Your task to perform on an android device: Is it going to rain this weekend? Image 0: 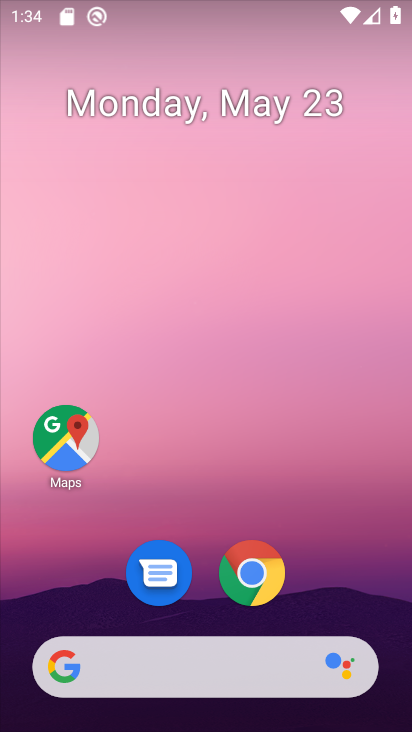
Step 0: drag from (323, 598) to (359, 100)
Your task to perform on an android device: Is it going to rain this weekend? Image 1: 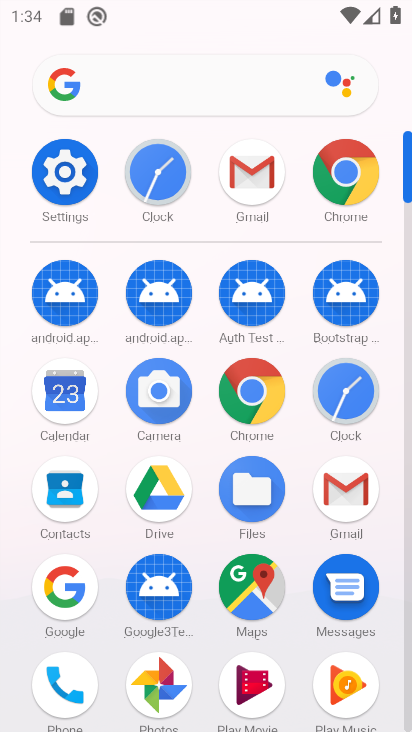
Step 1: drag from (289, 632) to (279, 394)
Your task to perform on an android device: Is it going to rain this weekend? Image 2: 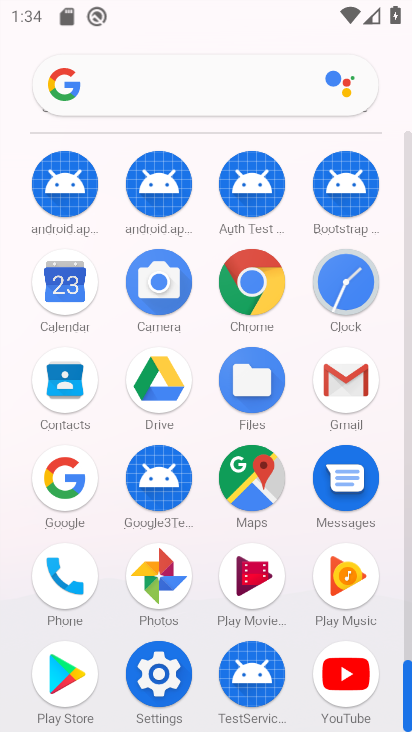
Step 2: click (68, 487)
Your task to perform on an android device: Is it going to rain this weekend? Image 3: 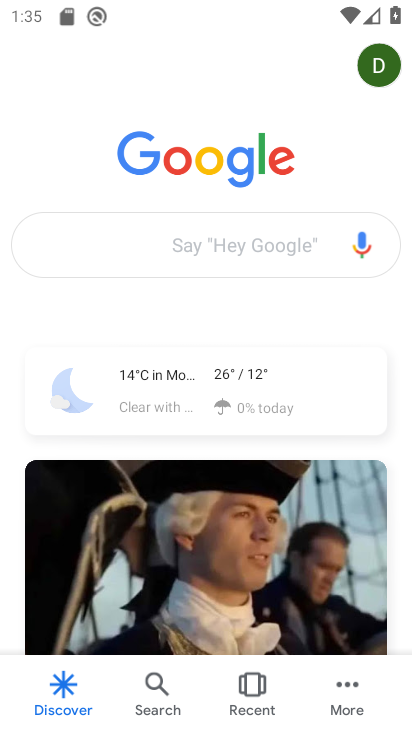
Step 3: click (244, 366)
Your task to perform on an android device: Is it going to rain this weekend? Image 4: 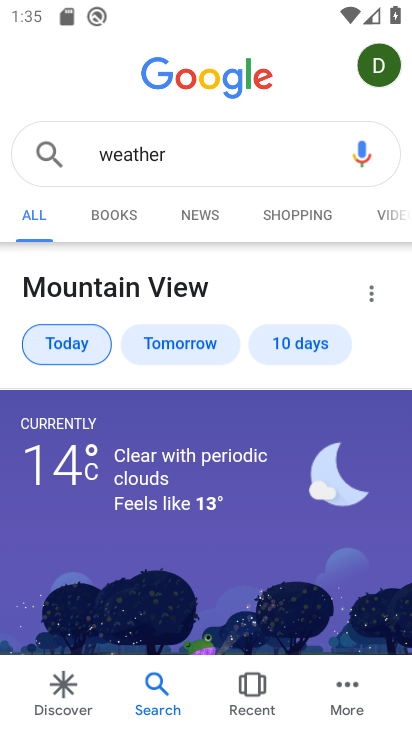
Step 4: click (318, 338)
Your task to perform on an android device: Is it going to rain this weekend? Image 5: 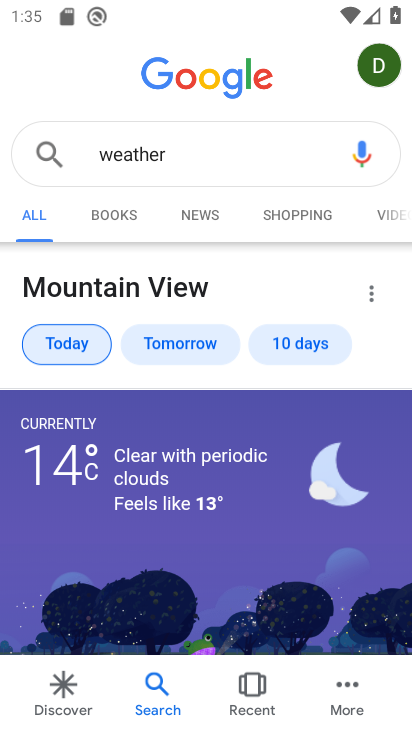
Step 5: click (318, 338)
Your task to perform on an android device: Is it going to rain this weekend? Image 6: 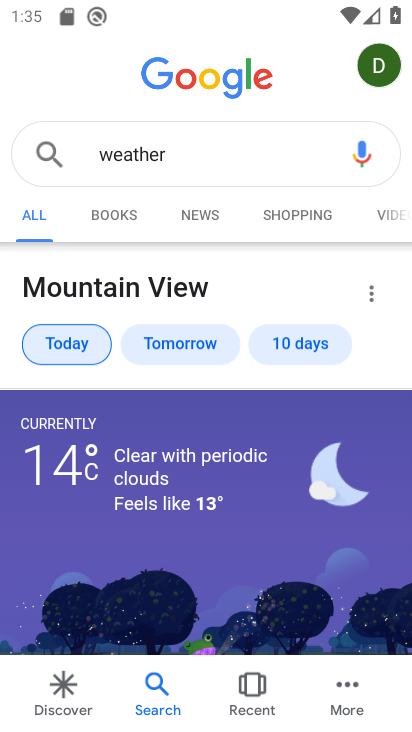
Step 6: task complete